Your task to perform on an android device: star an email in the gmail app Image 0: 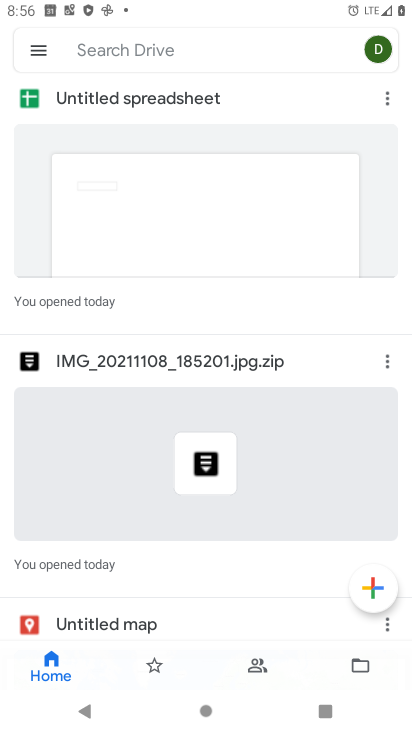
Step 0: press home button
Your task to perform on an android device: star an email in the gmail app Image 1: 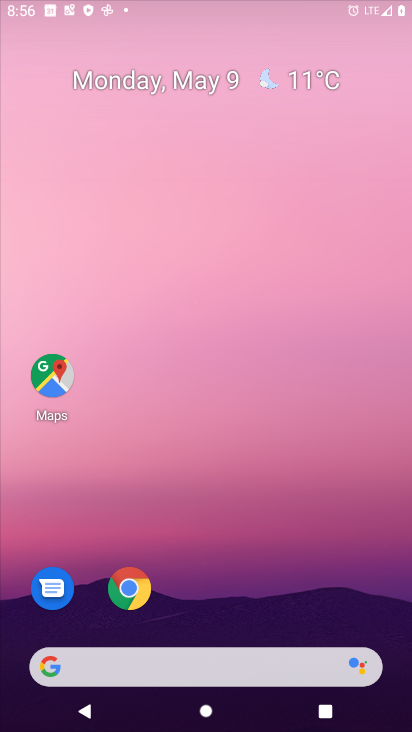
Step 1: drag from (351, 600) to (239, 10)
Your task to perform on an android device: star an email in the gmail app Image 2: 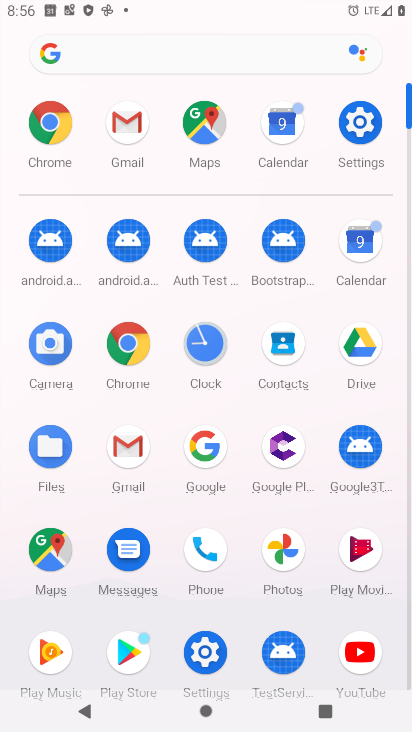
Step 2: click (129, 458)
Your task to perform on an android device: star an email in the gmail app Image 3: 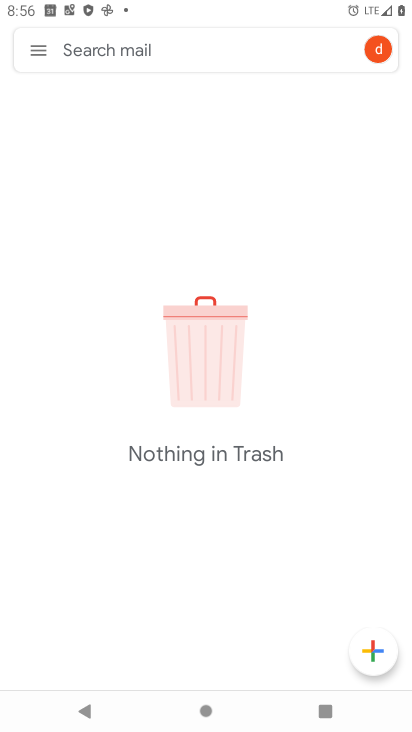
Step 3: click (42, 41)
Your task to perform on an android device: star an email in the gmail app Image 4: 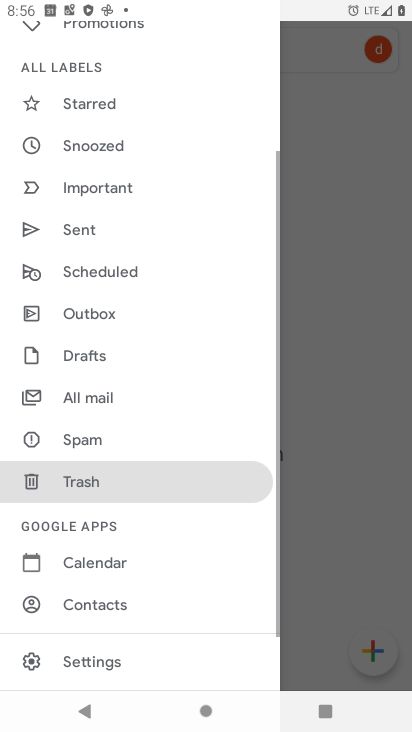
Step 4: drag from (100, 105) to (104, 641)
Your task to perform on an android device: star an email in the gmail app Image 5: 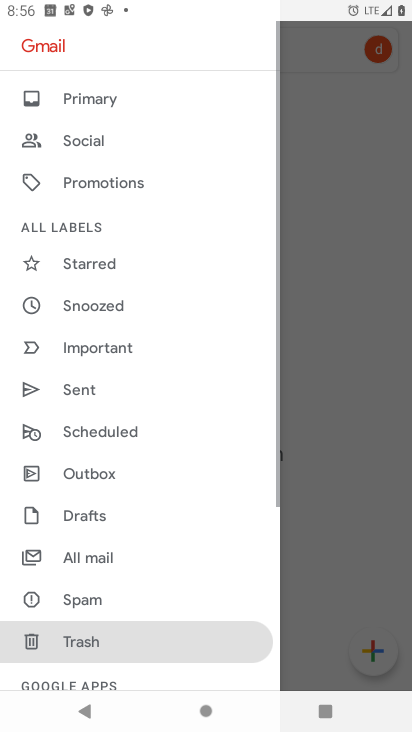
Step 5: click (154, 108)
Your task to perform on an android device: star an email in the gmail app Image 6: 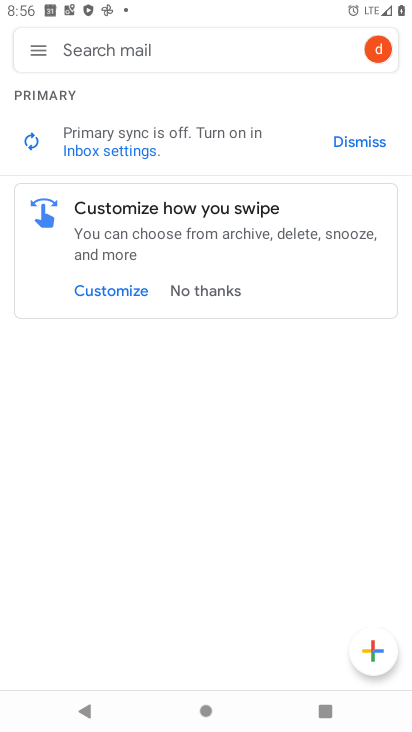
Step 6: task complete